Your task to perform on an android device: read, delete, or share a saved page in the chrome app Image 0: 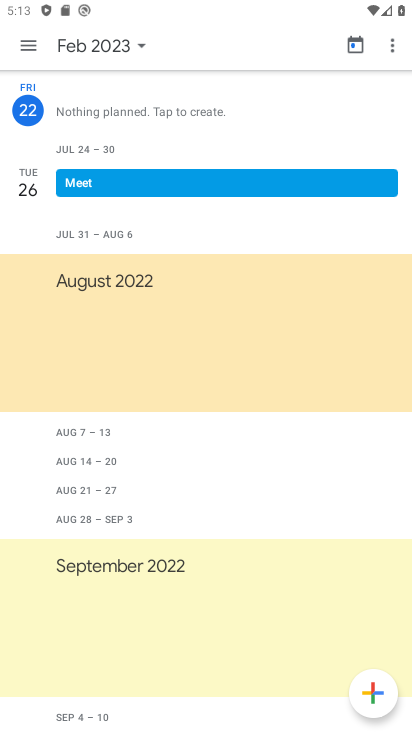
Step 0: press home button
Your task to perform on an android device: read, delete, or share a saved page in the chrome app Image 1: 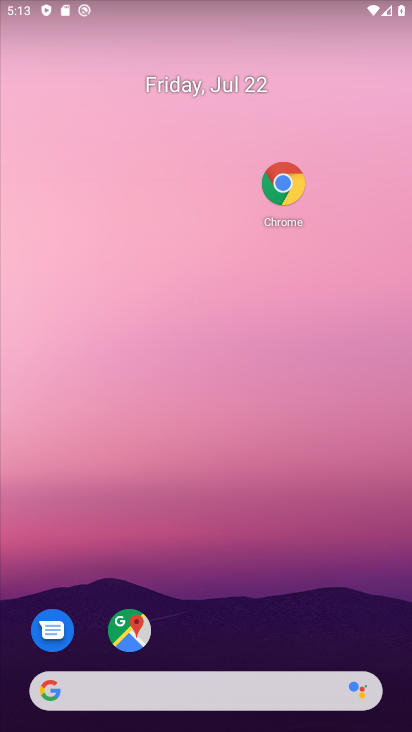
Step 1: drag from (179, 635) to (275, 46)
Your task to perform on an android device: read, delete, or share a saved page in the chrome app Image 2: 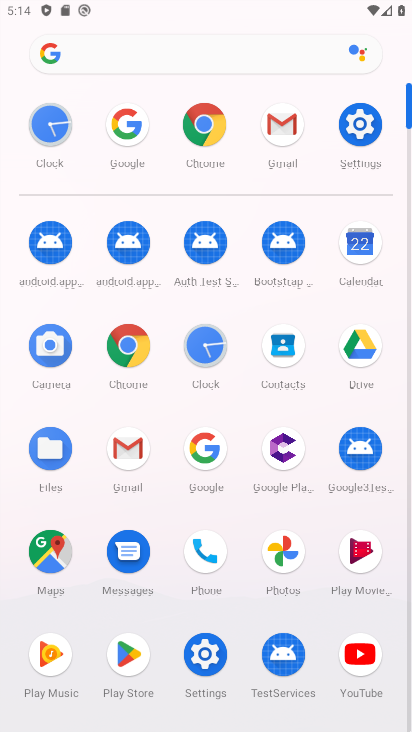
Step 2: click (219, 118)
Your task to perform on an android device: read, delete, or share a saved page in the chrome app Image 3: 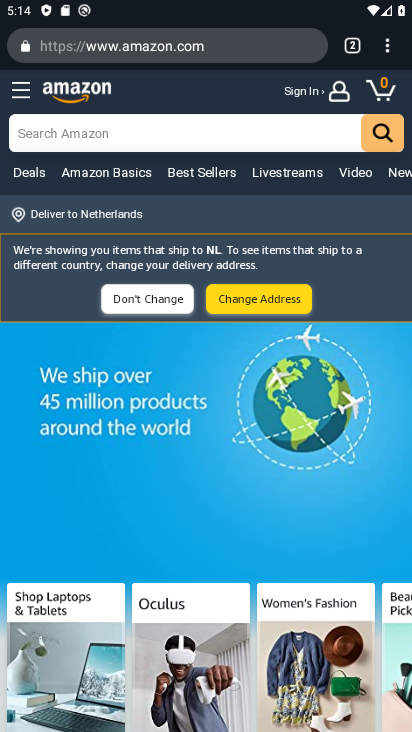
Step 3: click (393, 46)
Your task to perform on an android device: read, delete, or share a saved page in the chrome app Image 4: 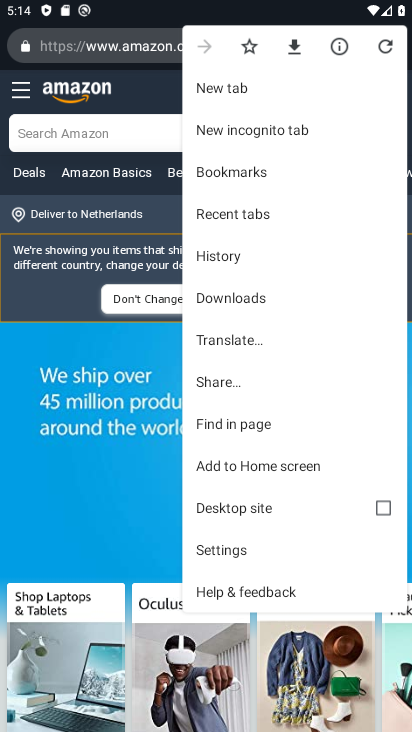
Step 4: task complete